Your task to perform on an android device: turn off priority inbox in the gmail app Image 0: 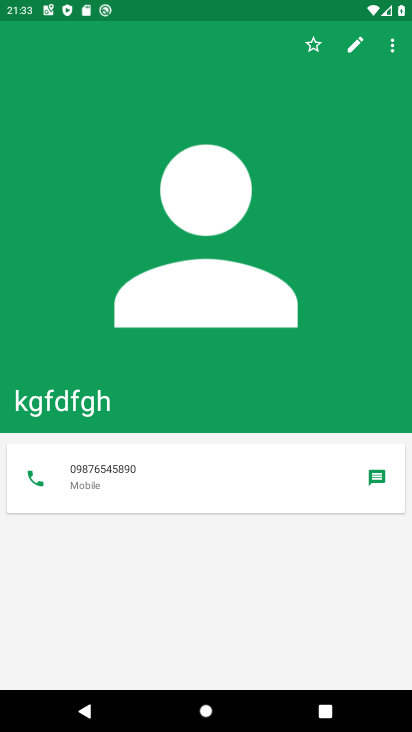
Step 0: press home button
Your task to perform on an android device: turn off priority inbox in the gmail app Image 1: 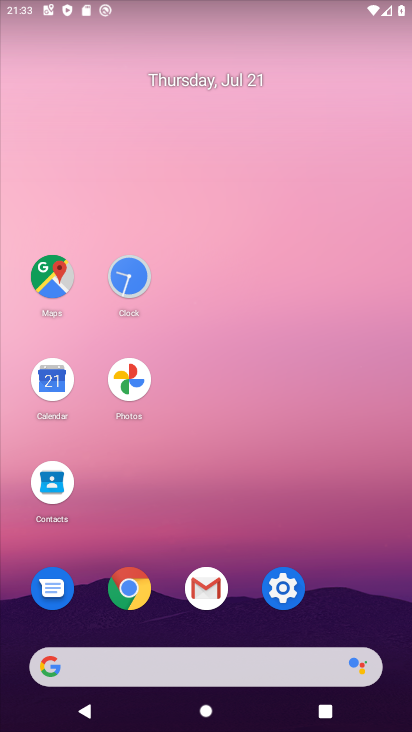
Step 1: click (206, 585)
Your task to perform on an android device: turn off priority inbox in the gmail app Image 2: 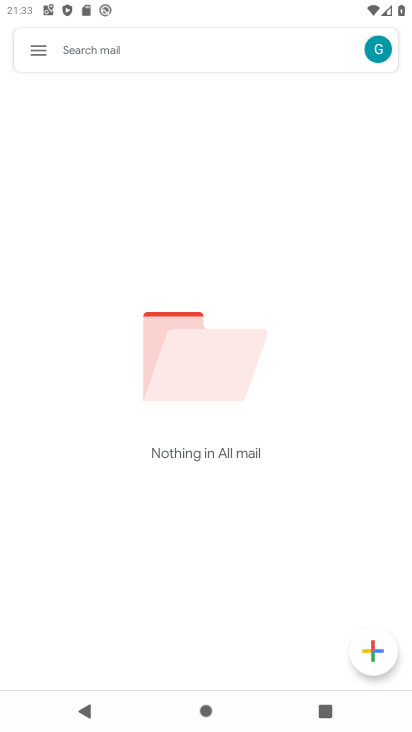
Step 2: click (34, 50)
Your task to perform on an android device: turn off priority inbox in the gmail app Image 3: 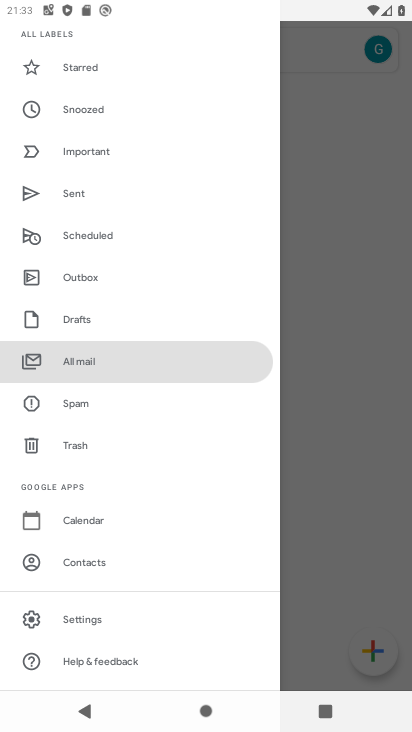
Step 3: click (90, 617)
Your task to perform on an android device: turn off priority inbox in the gmail app Image 4: 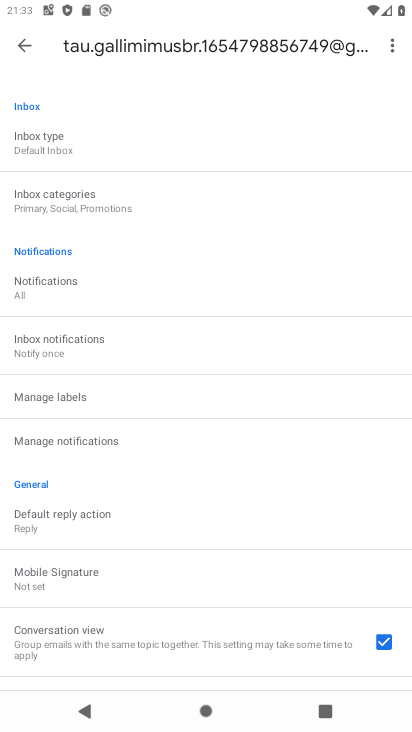
Step 4: drag from (171, 587) to (173, 671)
Your task to perform on an android device: turn off priority inbox in the gmail app Image 5: 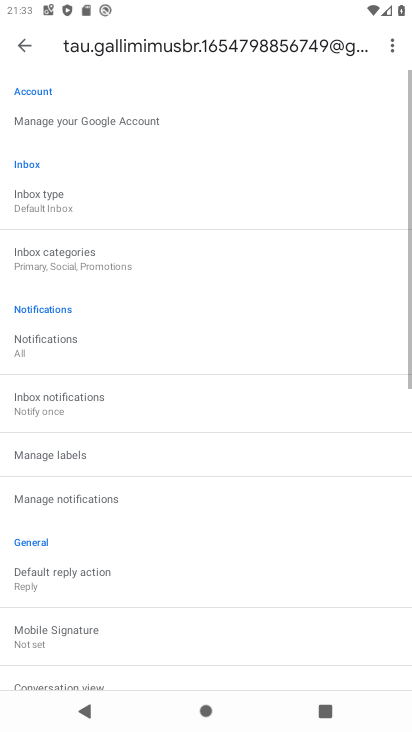
Step 5: click (24, 201)
Your task to perform on an android device: turn off priority inbox in the gmail app Image 6: 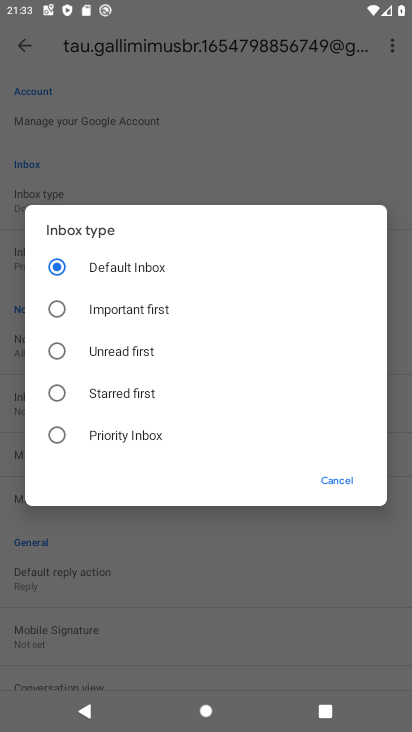
Step 6: task complete